Your task to perform on an android device: make emails show in primary in the gmail app Image 0: 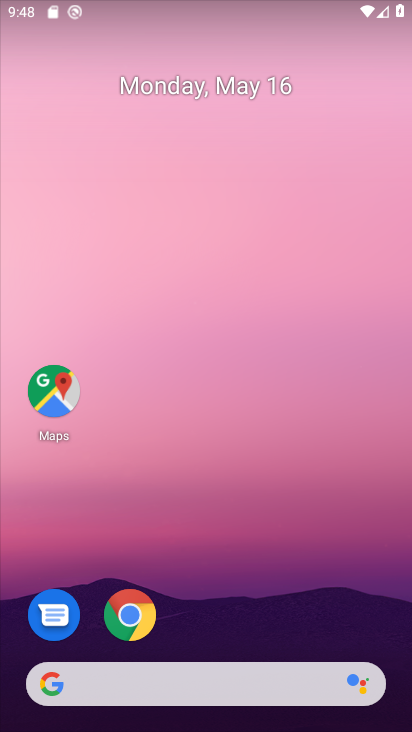
Step 0: drag from (239, 508) to (281, 0)
Your task to perform on an android device: make emails show in primary in the gmail app Image 1: 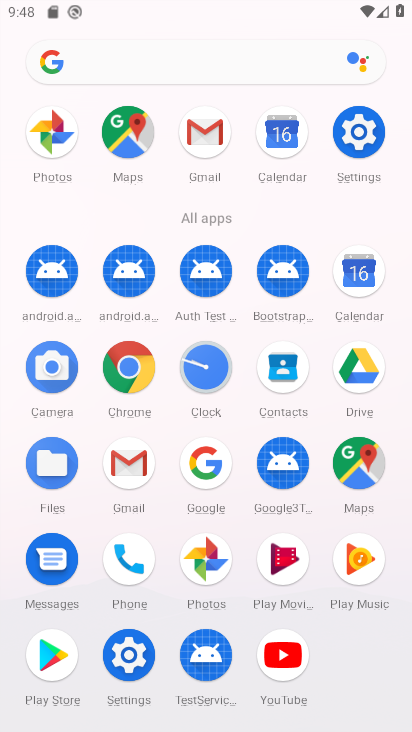
Step 1: drag from (4, 290) to (10, 245)
Your task to perform on an android device: make emails show in primary in the gmail app Image 2: 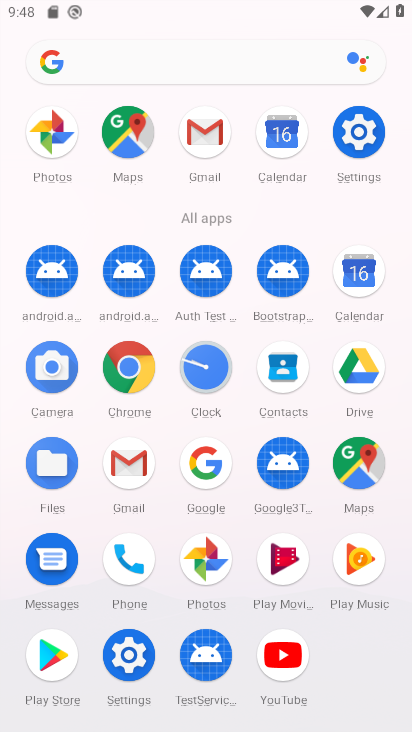
Step 2: drag from (11, 521) to (11, 250)
Your task to perform on an android device: make emails show in primary in the gmail app Image 3: 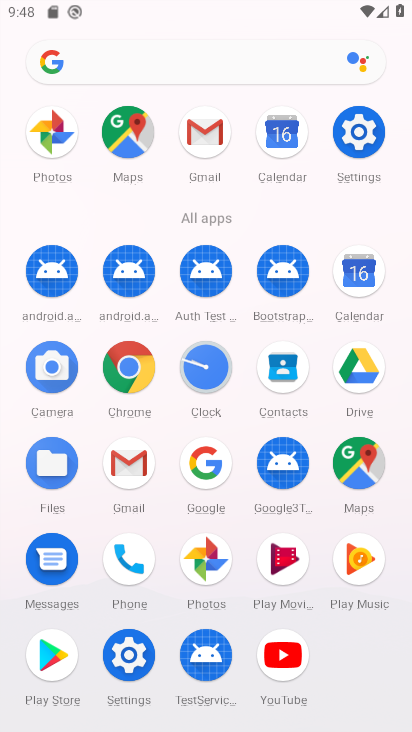
Step 3: drag from (7, 576) to (8, 229)
Your task to perform on an android device: make emails show in primary in the gmail app Image 4: 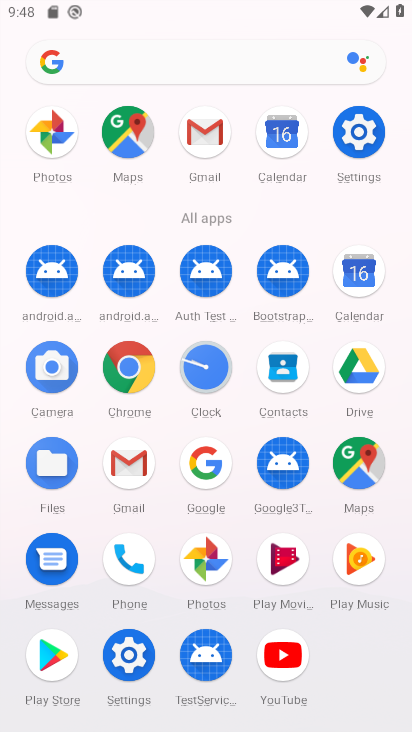
Step 4: click (126, 458)
Your task to perform on an android device: make emails show in primary in the gmail app Image 5: 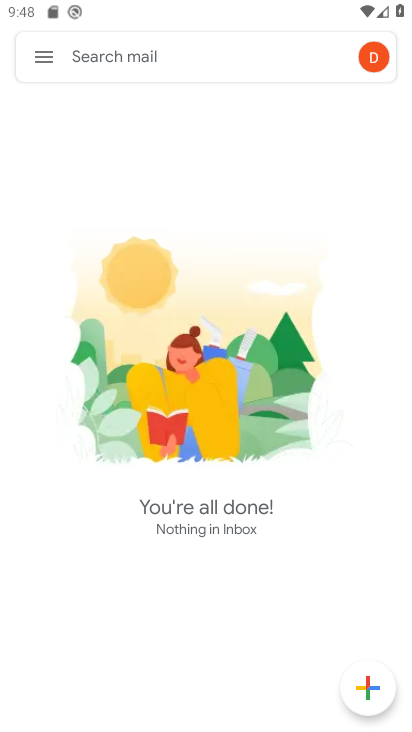
Step 5: click (28, 55)
Your task to perform on an android device: make emails show in primary in the gmail app Image 6: 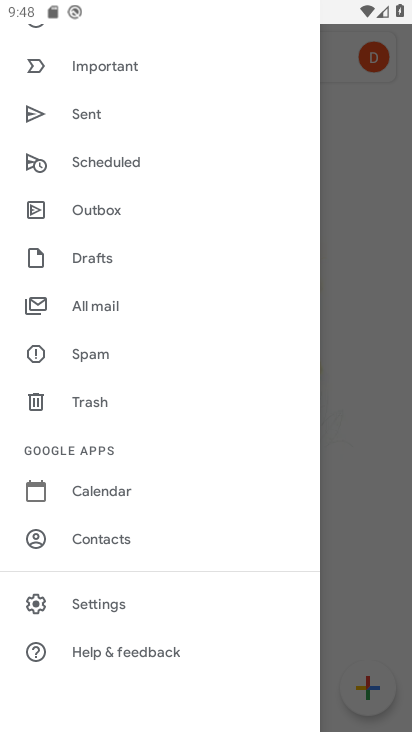
Step 6: click (100, 603)
Your task to perform on an android device: make emails show in primary in the gmail app Image 7: 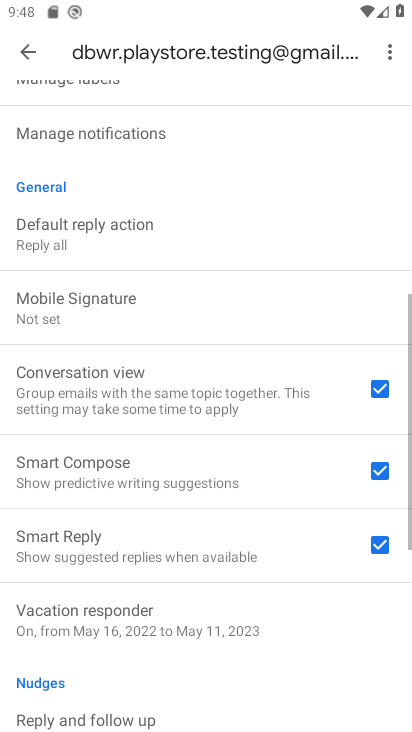
Step 7: drag from (166, 223) to (164, 564)
Your task to perform on an android device: make emails show in primary in the gmail app Image 8: 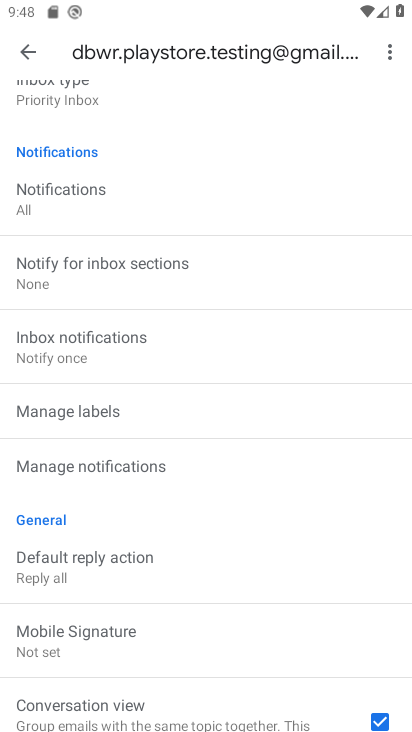
Step 8: drag from (175, 167) to (182, 558)
Your task to perform on an android device: make emails show in primary in the gmail app Image 9: 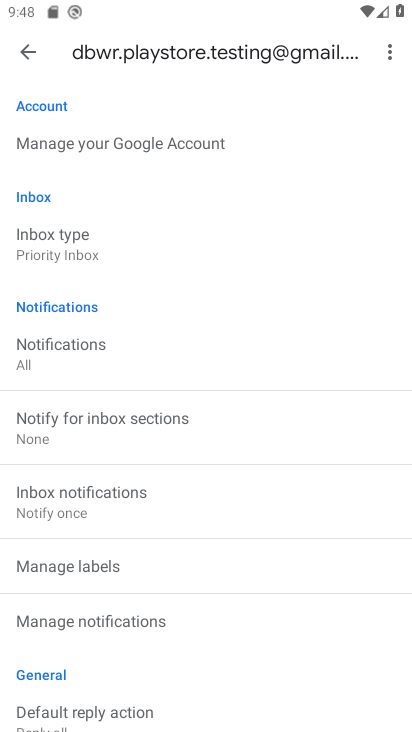
Step 9: click (108, 234)
Your task to perform on an android device: make emails show in primary in the gmail app Image 10: 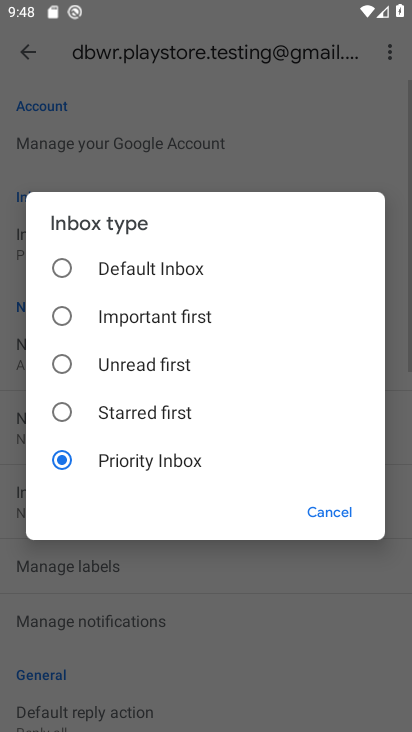
Step 10: click (139, 265)
Your task to perform on an android device: make emails show in primary in the gmail app Image 11: 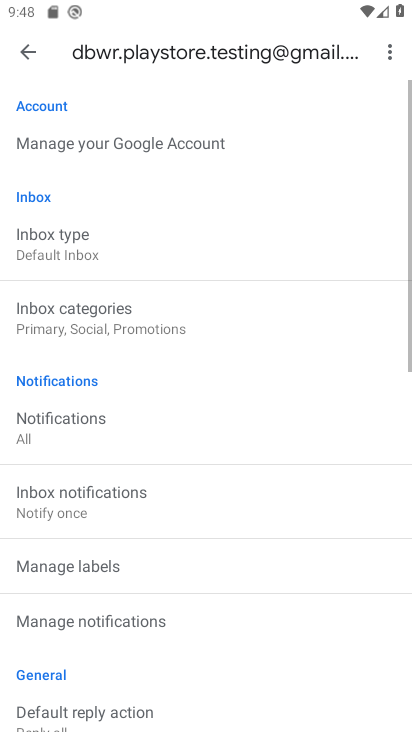
Step 11: click (110, 315)
Your task to perform on an android device: make emails show in primary in the gmail app Image 12: 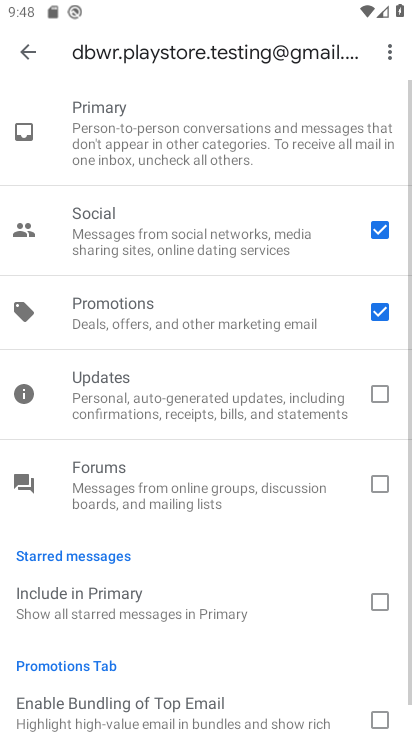
Step 12: click (379, 310)
Your task to perform on an android device: make emails show in primary in the gmail app Image 13: 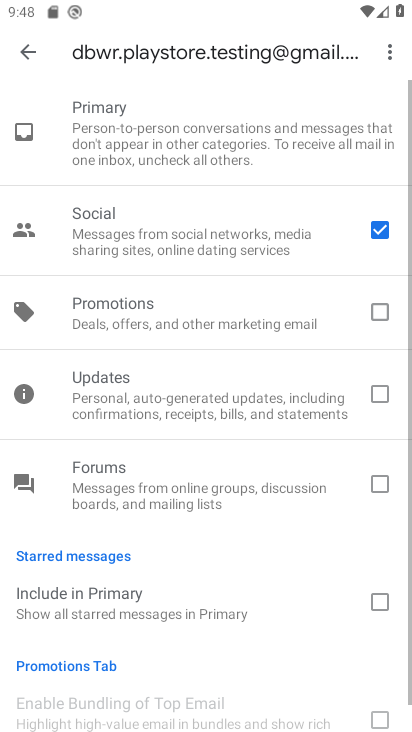
Step 13: click (380, 231)
Your task to perform on an android device: make emails show in primary in the gmail app Image 14: 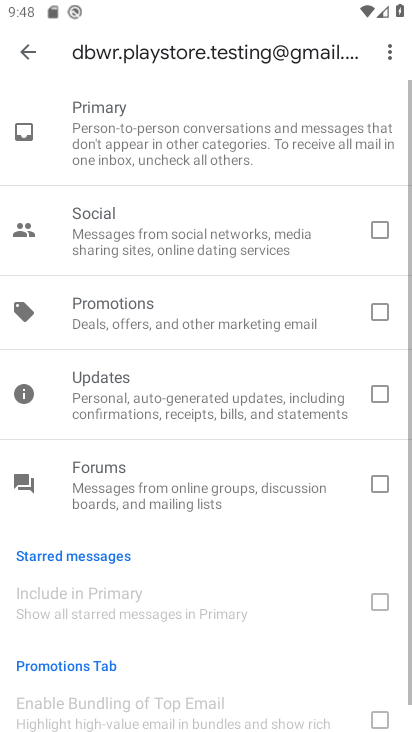
Step 14: task complete